Your task to perform on an android device: open chrome and create a bookmark for the current page Image 0: 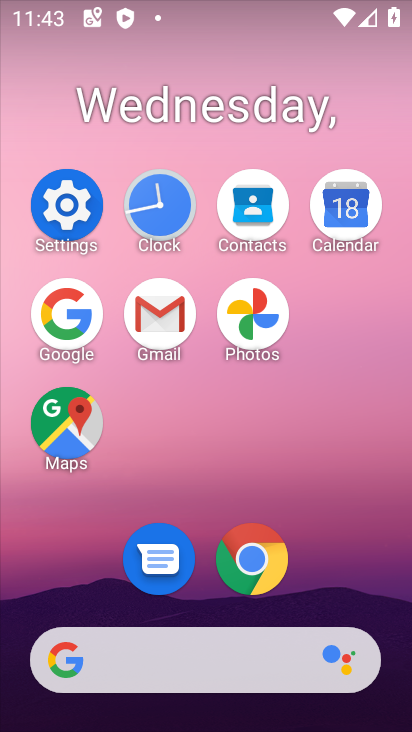
Step 0: click (259, 559)
Your task to perform on an android device: open chrome and create a bookmark for the current page Image 1: 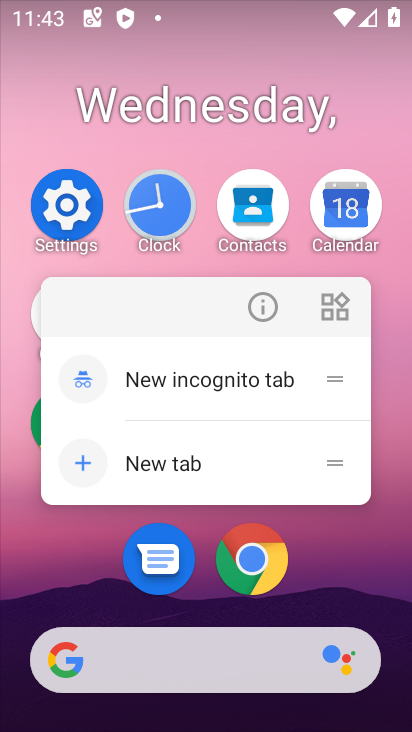
Step 1: click (265, 539)
Your task to perform on an android device: open chrome and create a bookmark for the current page Image 2: 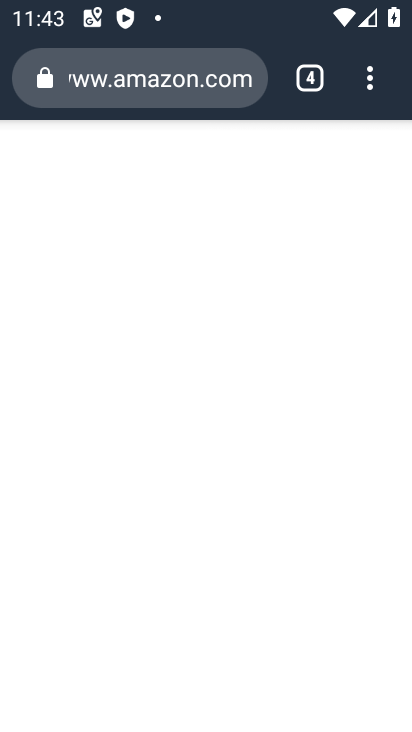
Step 2: click (367, 72)
Your task to perform on an android device: open chrome and create a bookmark for the current page Image 3: 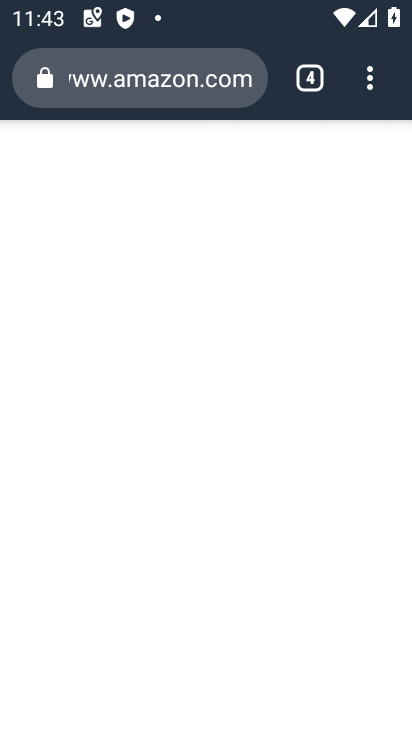
Step 3: click (368, 80)
Your task to perform on an android device: open chrome and create a bookmark for the current page Image 4: 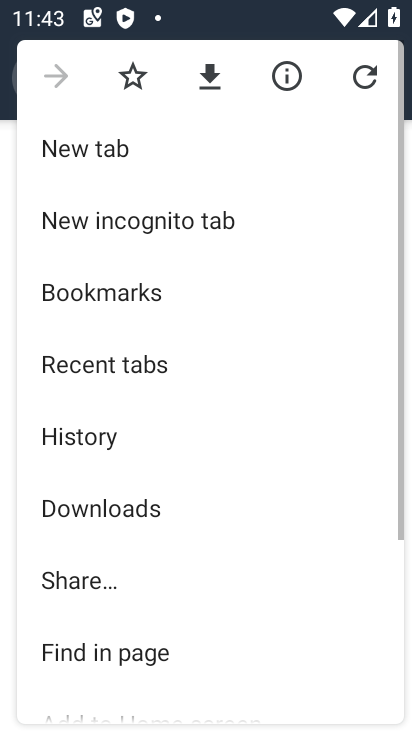
Step 4: click (119, 77)
Your task to perform on an android device: open chrome and create a bookmark for the current page Image 5: 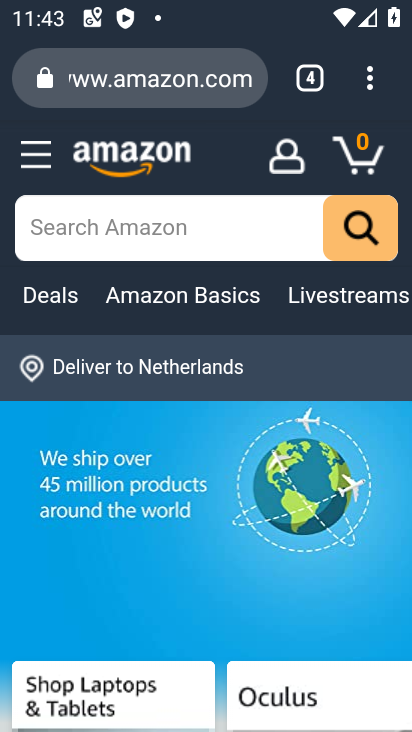
Step 5: task complete